Your task to perform on an android device: turn on sleep mode Image 0: 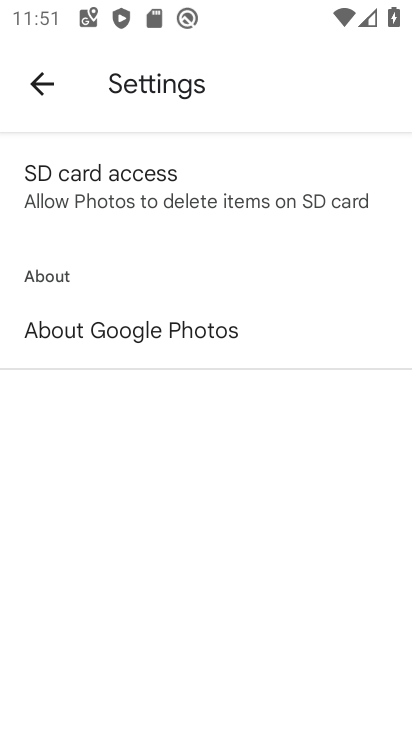
Step 0: press home button
Your task to perform on an android device: turn on sleep mode Image 1: 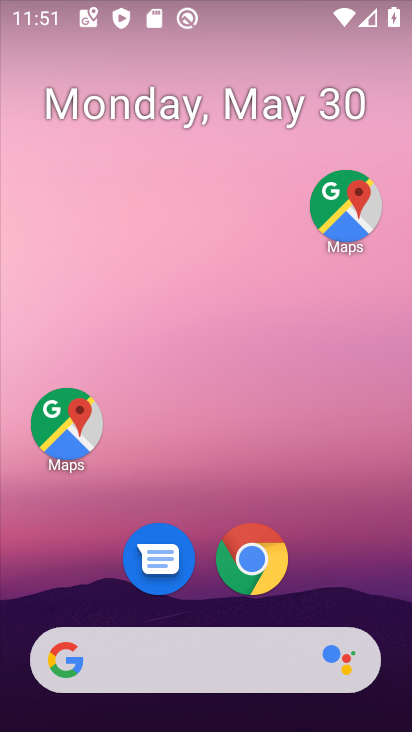
Step 1: drag from (335, 519) to (287, 93)
Your task to perform on an android device: turn on sleep mode Image 2: 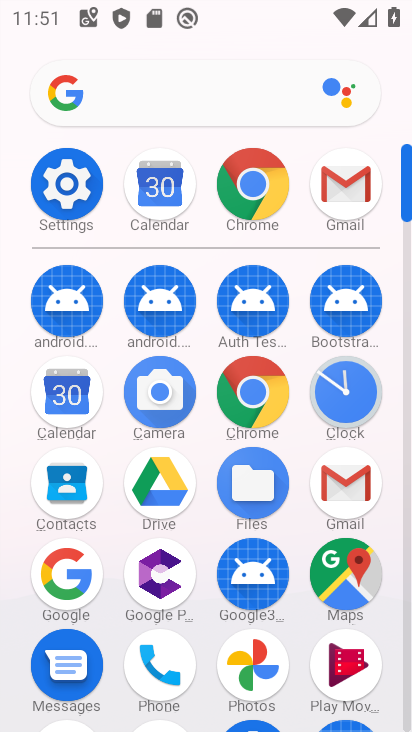
Step 2: click (91, 188)
Your task to perform on an android device: turn on sleep mode Image 3: 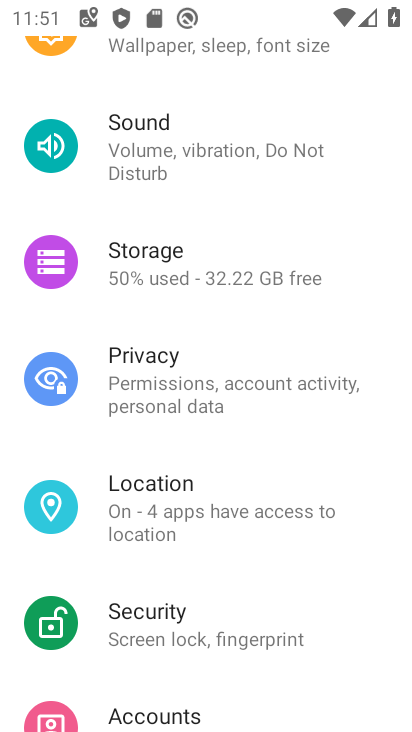
Step 3: drag from (271, 169) to (218, 486)
Your task to perform on an android device: turn on sleep mode Image 4: 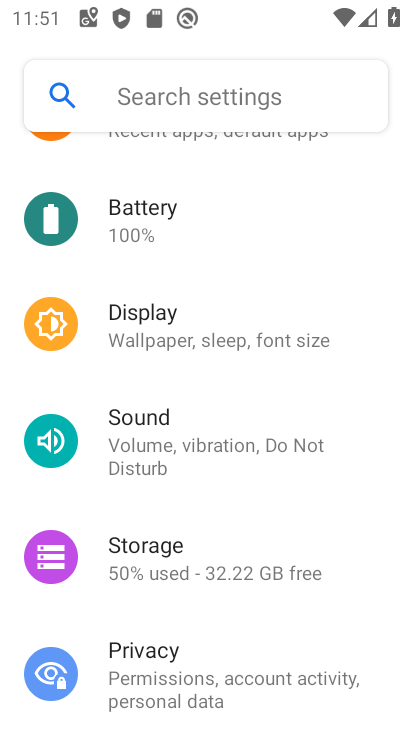
Step 4: click (163, 338)
Your task to perform on an android device: turn on sleep mode Image 5: 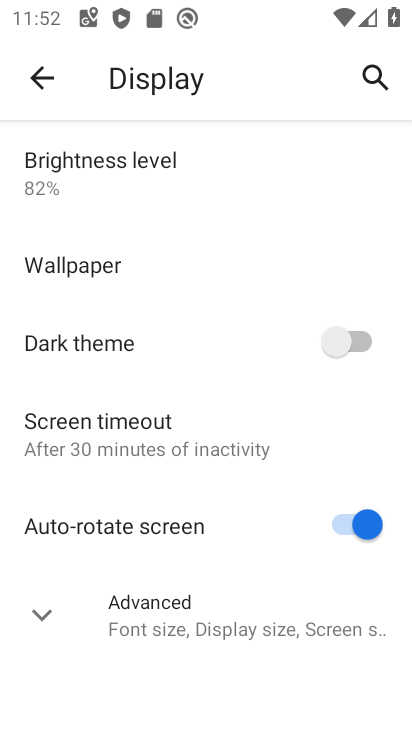
Step 5: click (147, 443)
Your task to perform on an android device: turn on sleep mode Image 6: 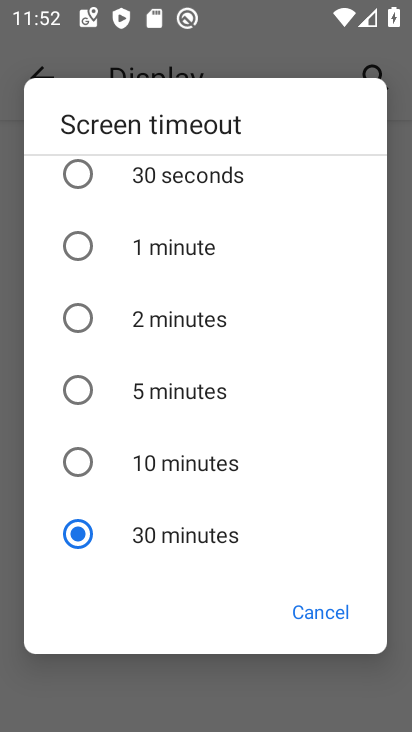
Step 6: task complete